Your task to perform on an android device: Open the web browser Image 0: 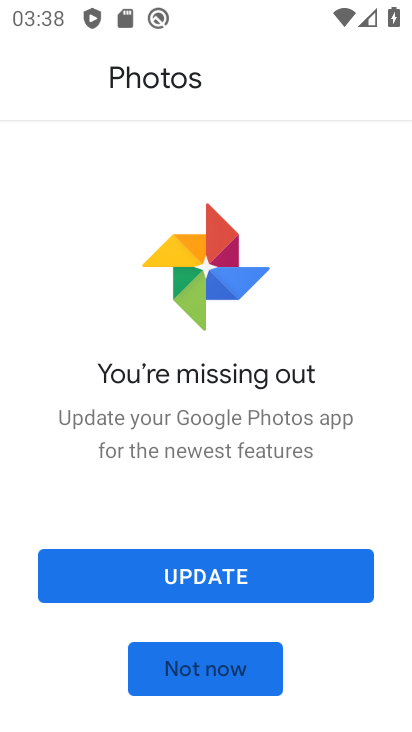
Step 0: press home button
Your task to perform on an android device: Open the web browser Image 1: 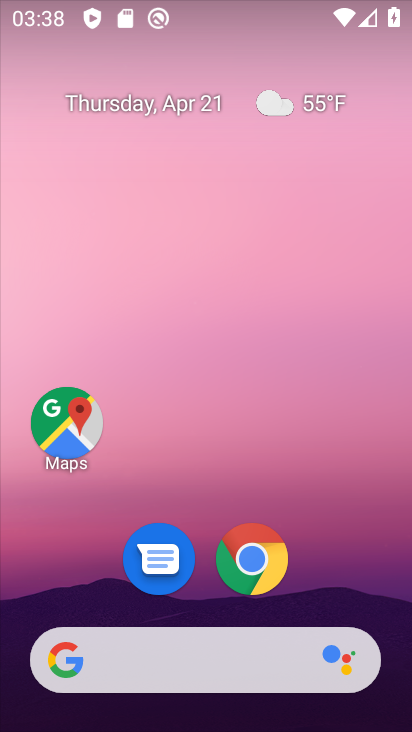
Step 1: click (268, 574)
Your task to perform on an android device: Open the web browser Image 2: 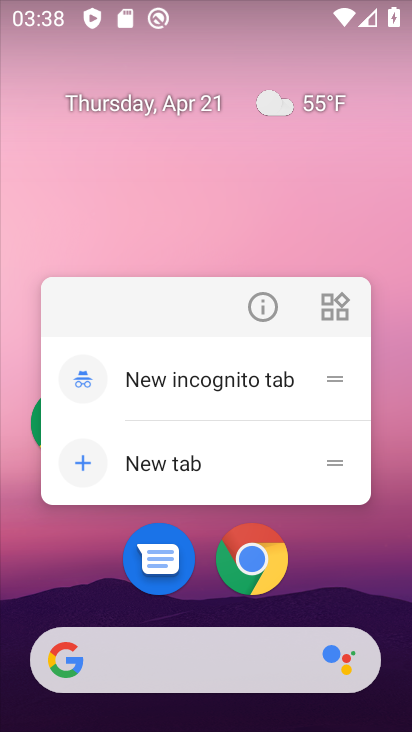
Step 2: click (256, 552)
Your task to perform on an android device: Open the web browser Image 3: 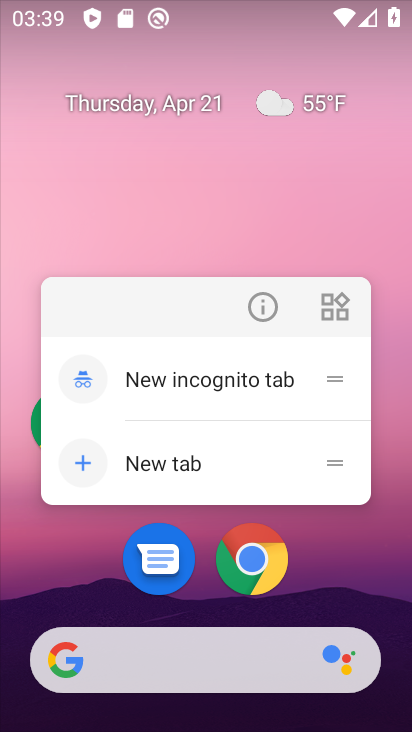
Step 3: click (255, 568)
Your task to perform on an android device: Open the web browser Image 4: 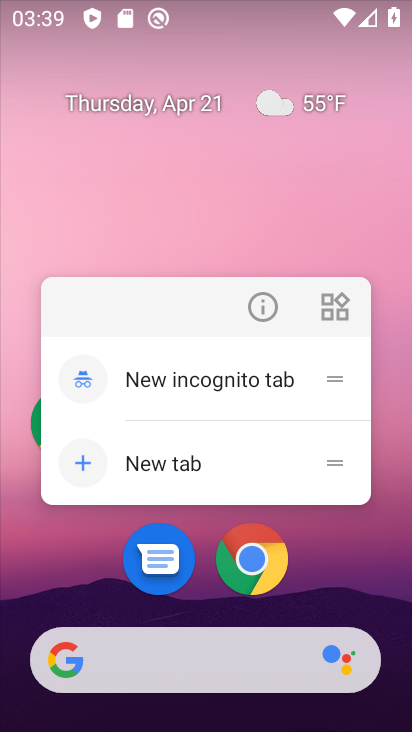
Step 4: click (255, 568)
Your task to perform on an android device: Open the web browser Image 5: 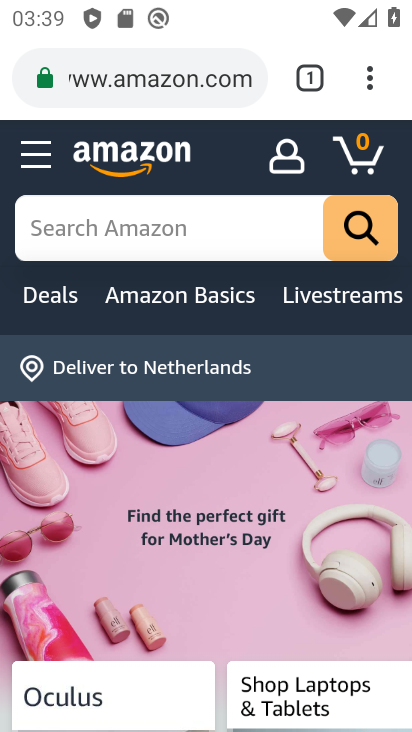
Step 5: task complete